Your task to perform on an android device: turn off sleep mode Image 0: 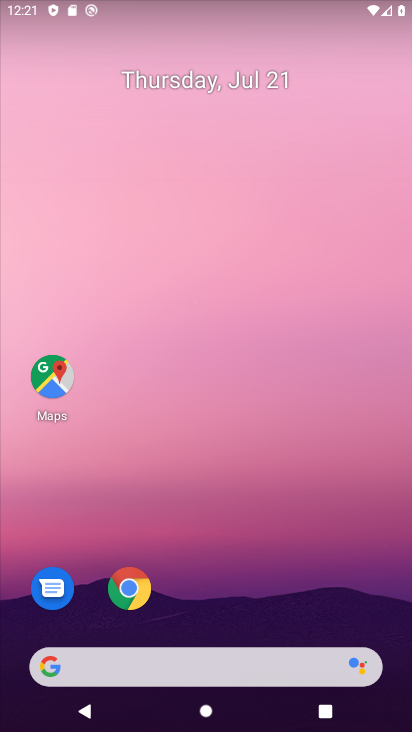
Step 0: drag from (240, 529) to (284, 153)
Your task to perform on an android device: turn off sleep mode Image 1: 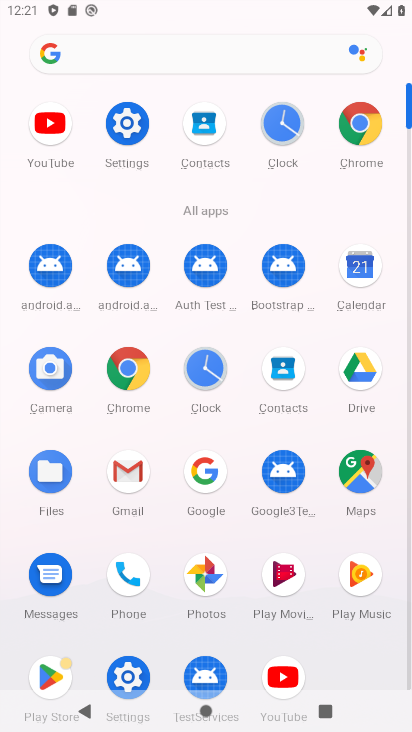
Step 1: task complete